Your task to perform on an android device: allow notifications from all sites in the chrome app Image 0: 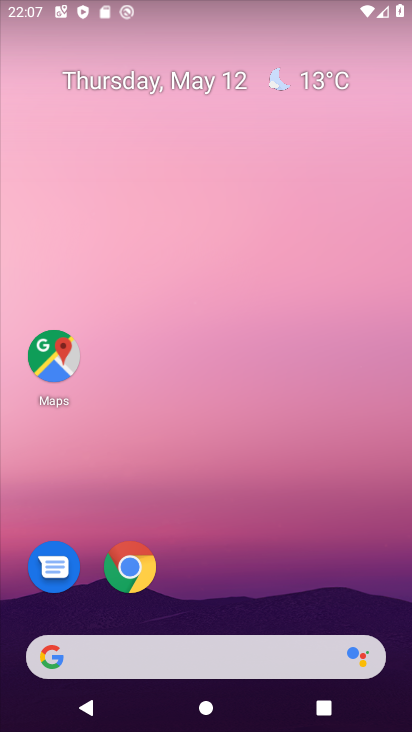
Step 0: click (128, 562)
Your task to perform on an android device: allow notifications from all sites in the chrome app Image 1: 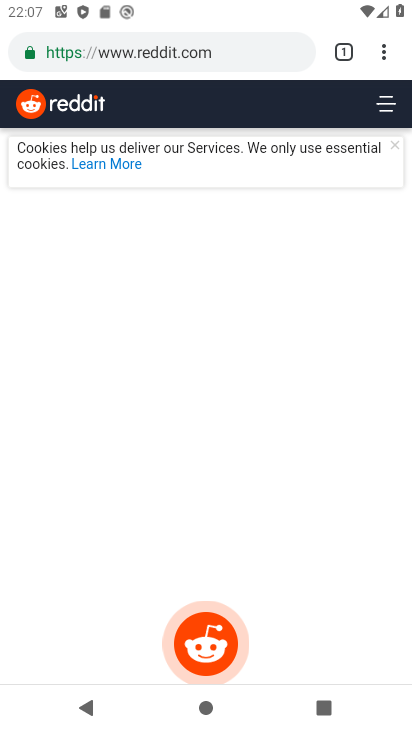
Step 1: click (386, 47)
Your task to perform on an android device: allow notifications from all sites in the chrome app Image 2: 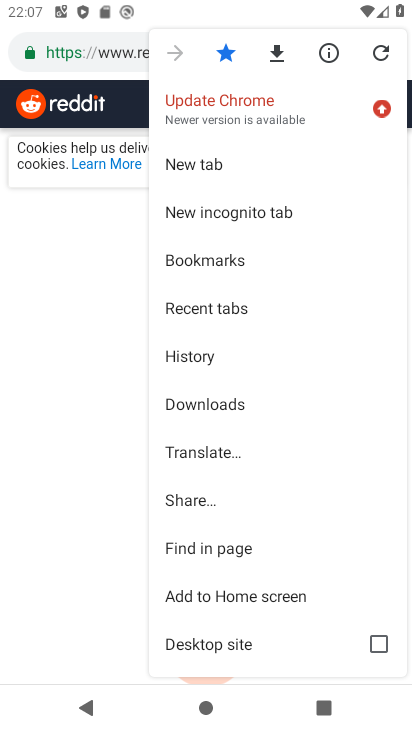
Step 2: drag from (246, 600) to (242, 267)
Your task to perform on an android device: allow notifications from all sites in the chrome app Image 3: 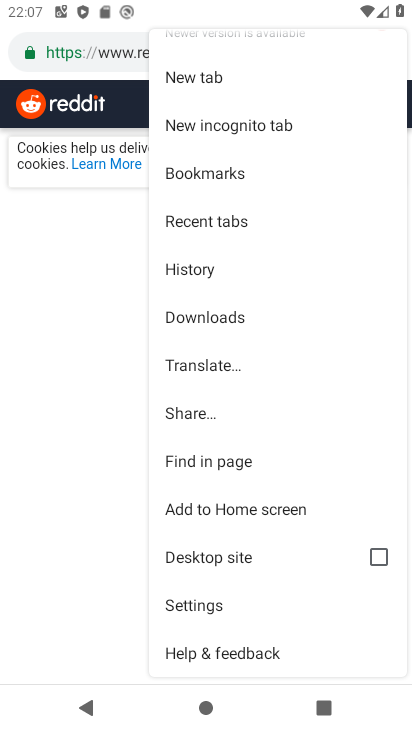
Step 3: click (243, 596)
Your task to perform on an android device: allow notifications from all sites in the chrome app Image 4: 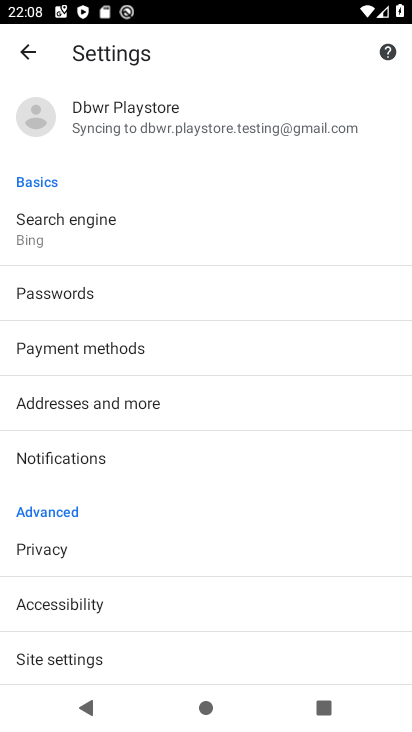
Step 4: click (129, 648)
Your task to perform on an android device: allow notifications from all sites in the chrome app Image 5: 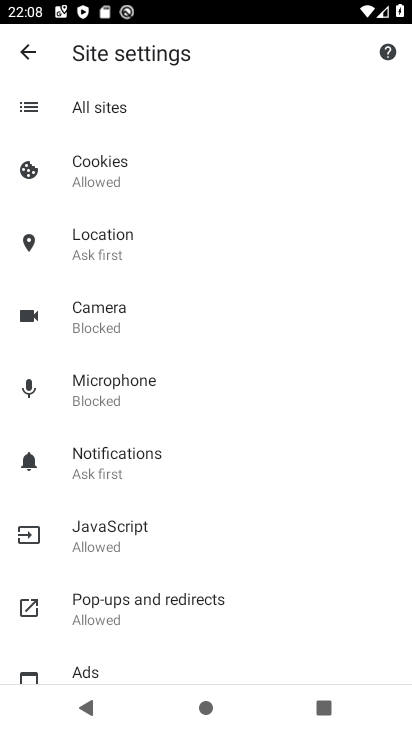
Step 5: task complete